Your task to perform on an android device: toggle pop-ups in chrome Image 0: 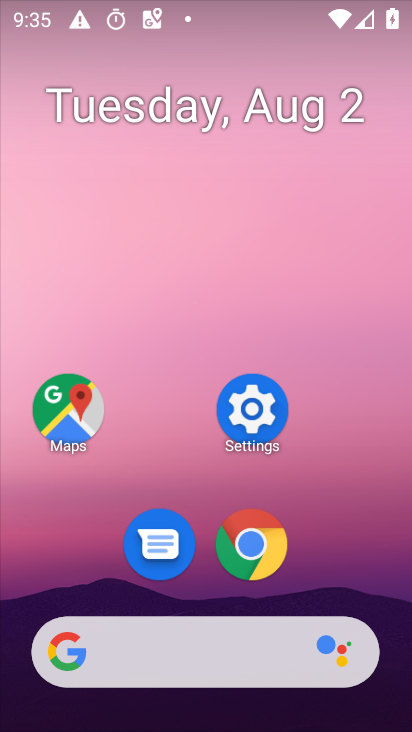
Step 0: press home button
Your task to perform on an android device: toggle pop-ups in chrome Image 1: 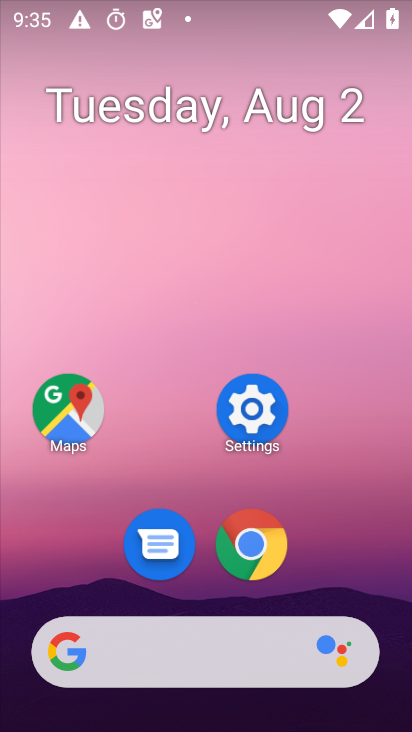
Step 1: click (249, 547)
Your task to perform on an android device: toggle pop-ups in chrome Image 2: 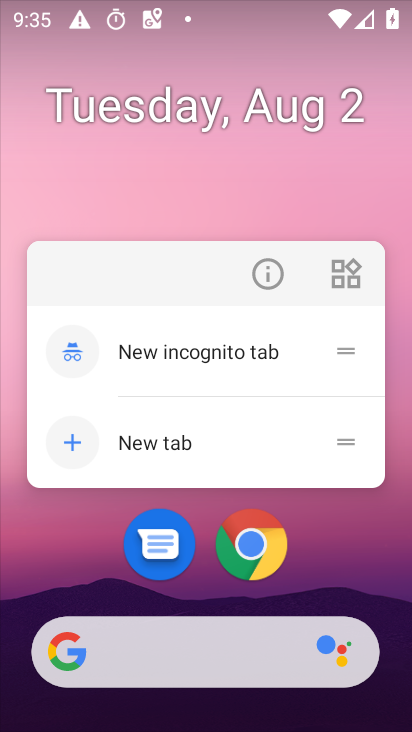
Step 2: click (249, 547)
Your task to perform on an android device: toggle pop-ups in chrome Image 3: 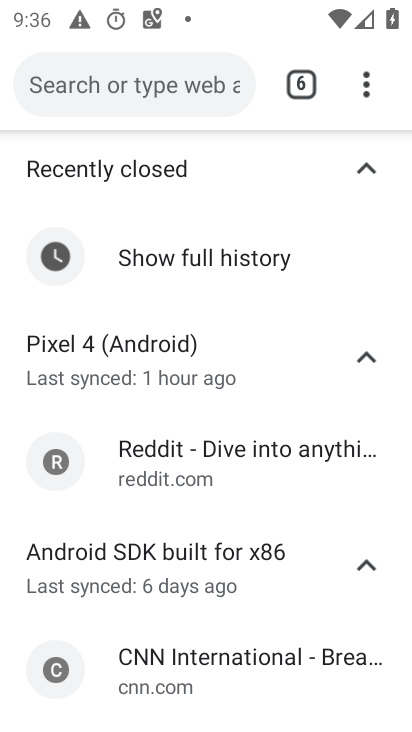
Step 3: drag from (364, 78) to (181, 593)
Your task to perform on an android device: toggle pop-ups in chrome Image 4: 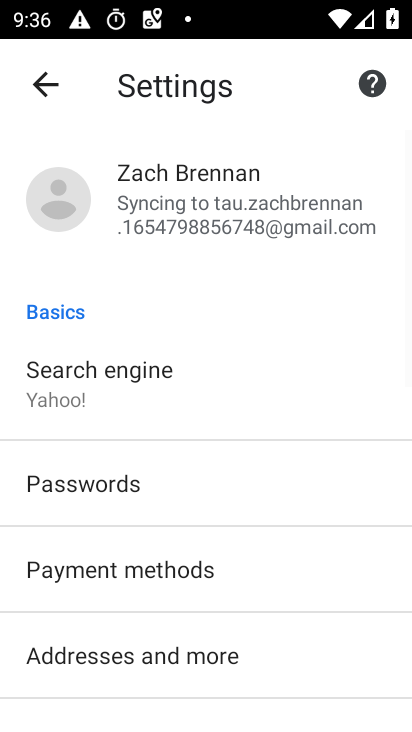
Step 4: drag from (264, 623) to (244, 326)
Your task to perform on an android device: toggle pop-ups in chrome Image 5: 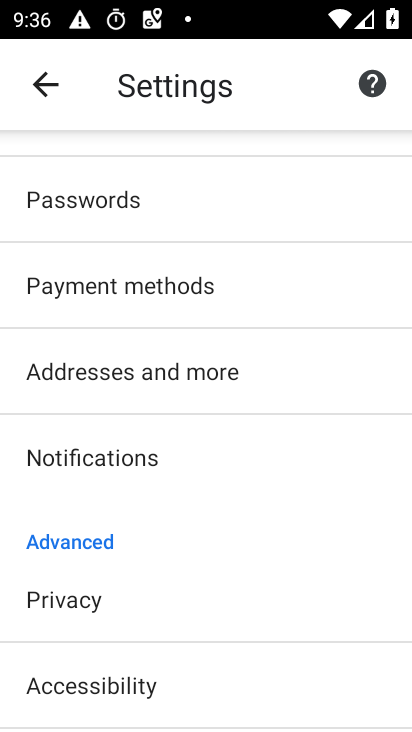
Step 5: drag from (210, 639) to (275, 284)
Your task to perform on an android device: toggle pop-ups in chrome Image 6: 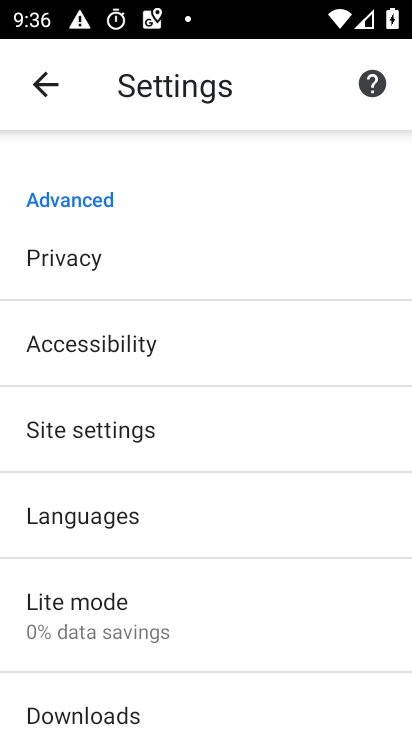
Step 6: click (112, 438)
Your task to perform on an android device: toggle pop-ups in chrome Image 7: 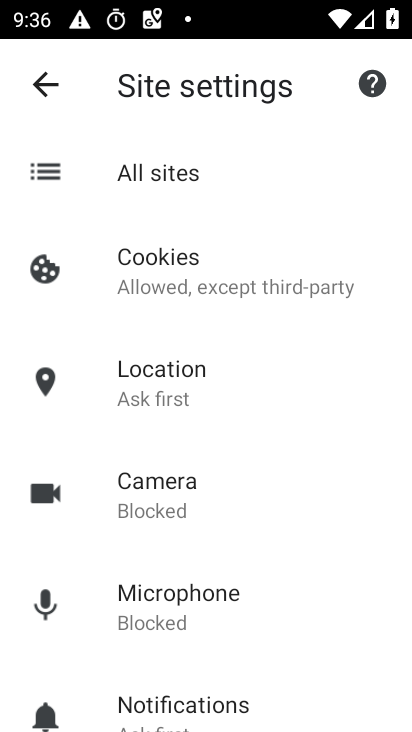
Step 7: drag from (252, 648) to (215, 321)
Your task to perform on an android device: toggle pop-ups in chrome Image 8: 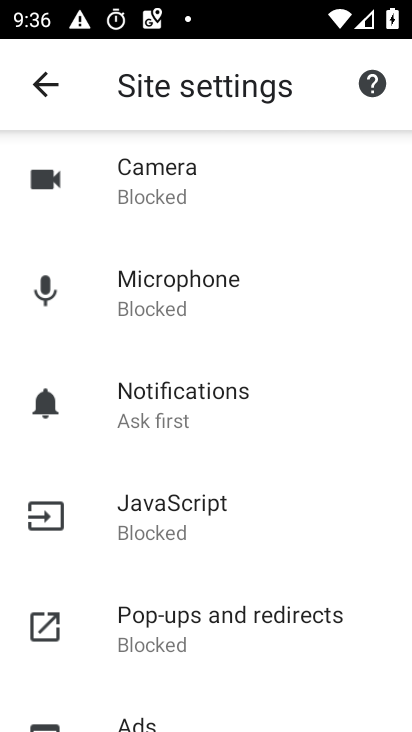
Step 8: click (148, 627)
Your task to perform on an android device: toggle pop-ups in chrome Image 9: 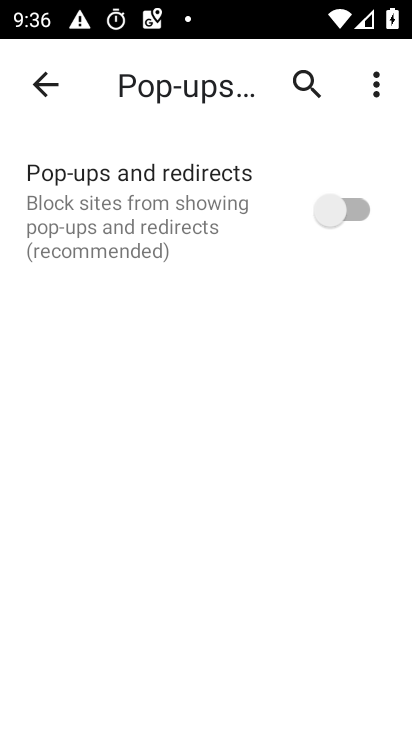
Step 9: click (360, 211)
Your task to perform on an android device: toggle pop-ups in chrome Image 10: 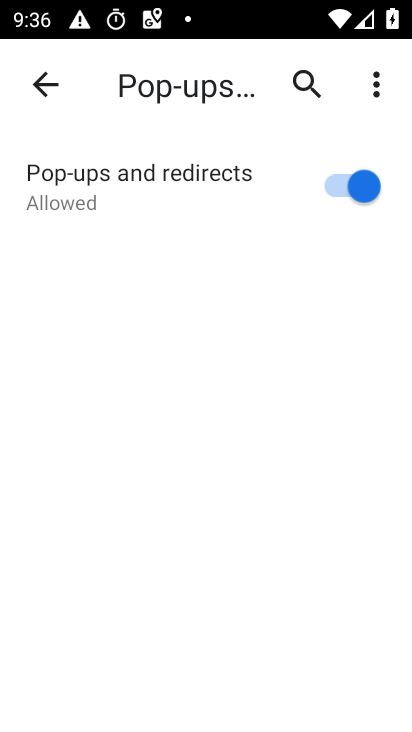
Step 10: task complete